Your task to perform on an android device: Open calendar and show me the third week of next month Image 0: 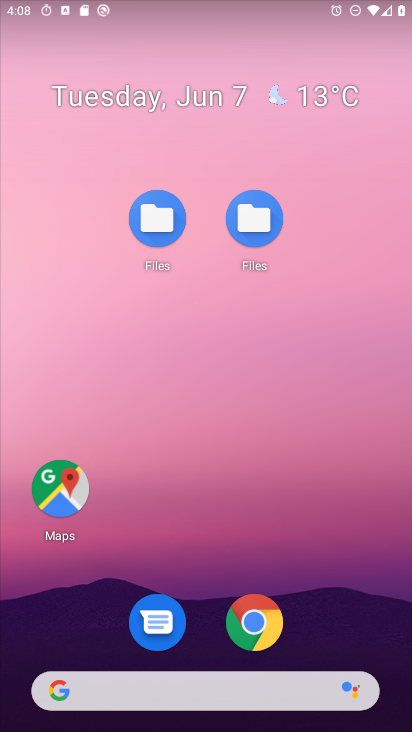
Step 0: drag from (329, 615) to (313, 222)
Your task to perform on an android device: Open calendar and show me the third week of next month Image 1: 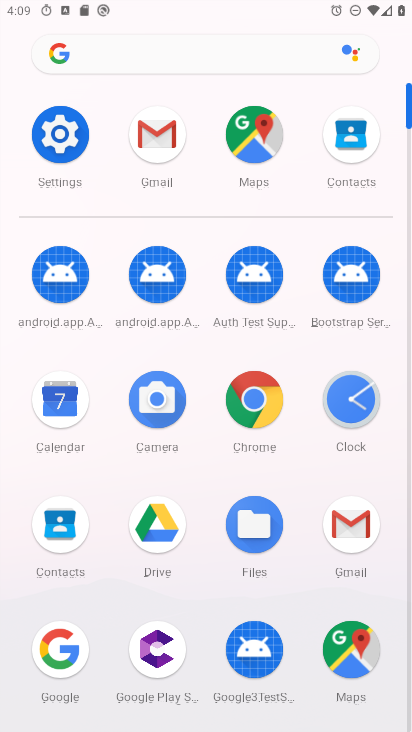
Step 1: click (382, 125)
Your task to perform on an android device: Open calendar and show me the third week of next month Image 2: 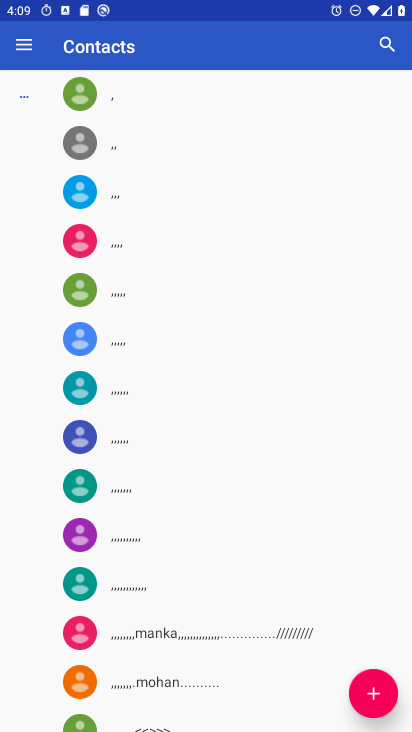
Step 2: press home button
Your task to perform on an android device: Open calendar and show me the third week of next month Image 3: 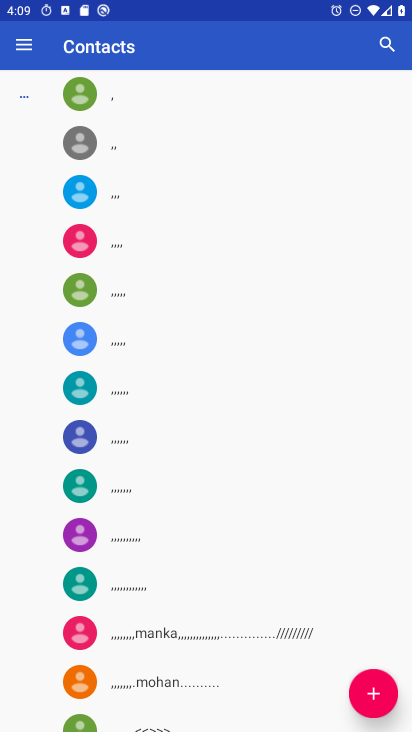
Step 3: press home button
Your task to perform on an android device: Open calendar and show me the third week of next month Image 4: 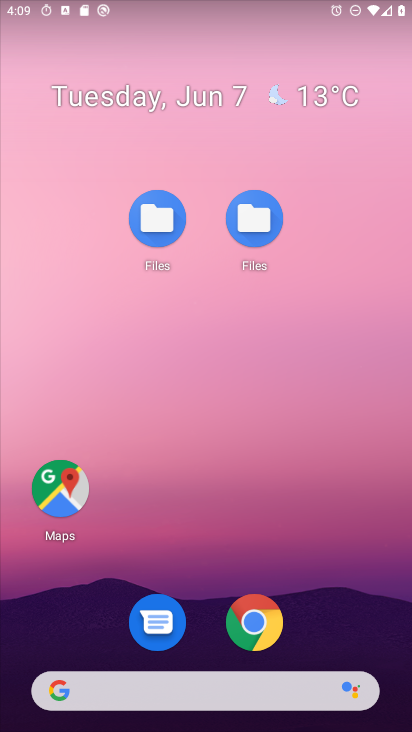
Step 4: drag from (344, 613) to (337, 179)
Your task to perform on an android device: Open calendar and show me the third week of next month Image 5: 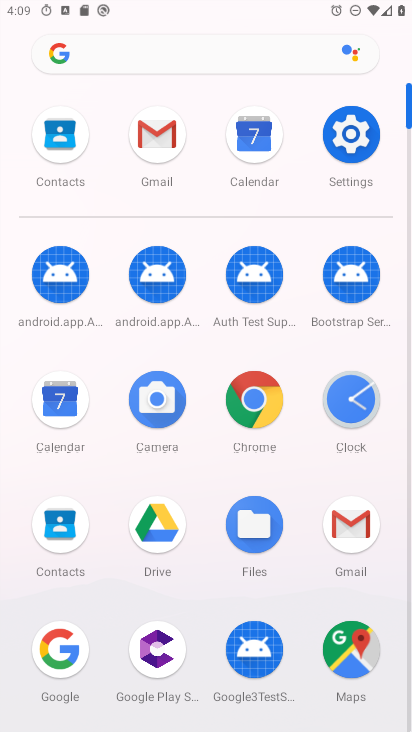
Step 5: click (261, 124)
Your task to perform on an android device: Open calendar and show me the third week of next month Image 6: 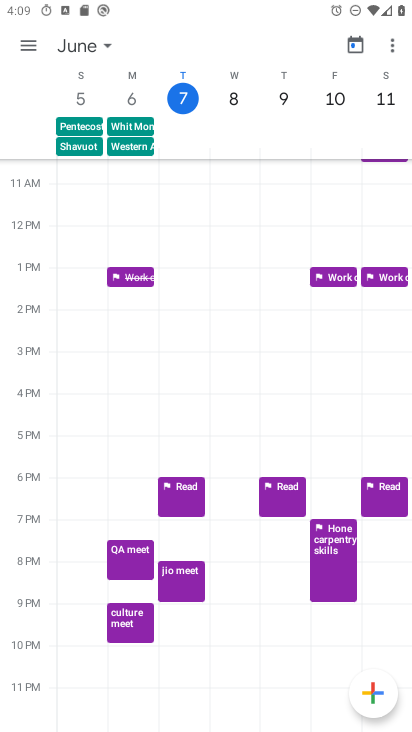
Step 6: click (22, 47)
Your task to perform on an android device: Open calendar and show me the third week of next month Image 7: 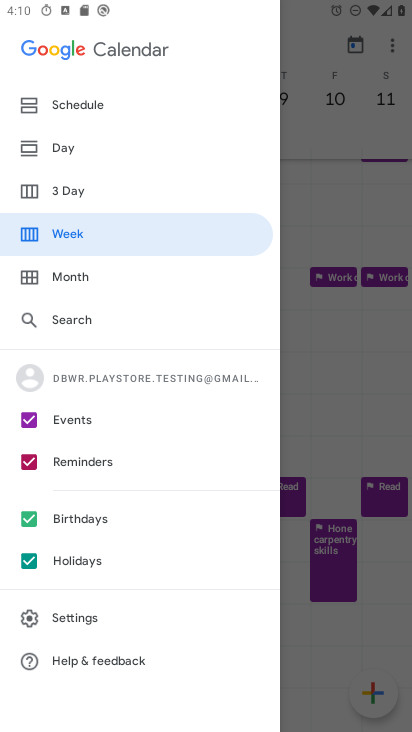
Step 7: click (64, 270)
Your task to perform on an android device: Open calendar and show me the third week of next month Image 8: 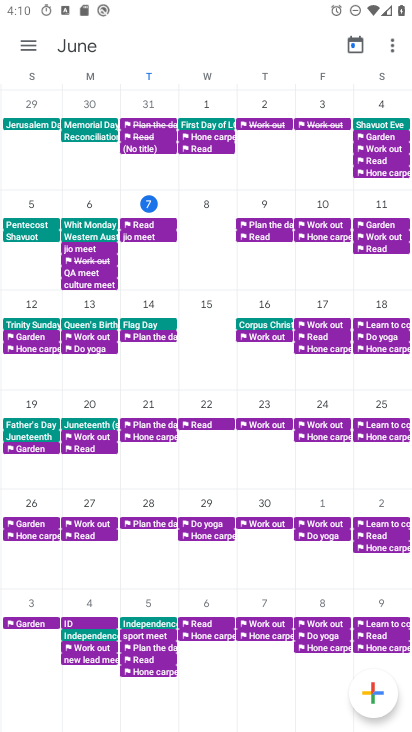
Step 8: task complete